Your task to perform on an android device: change the clock display to digital Image 0: 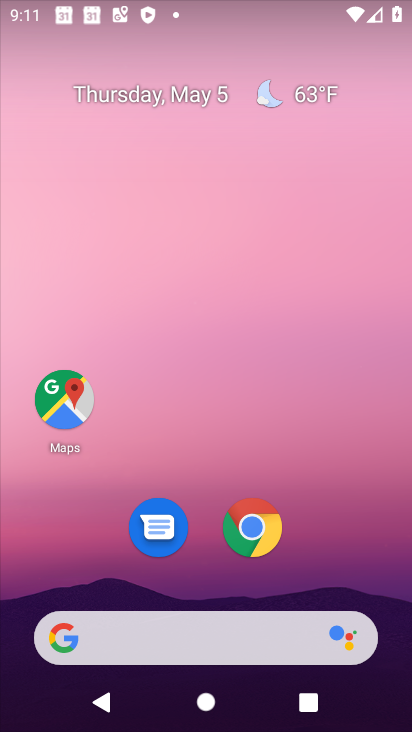
Step 0: drag from (271, 718) to (293, 3)
Your task to perform on an android device: change the clock display to digital Image 1: 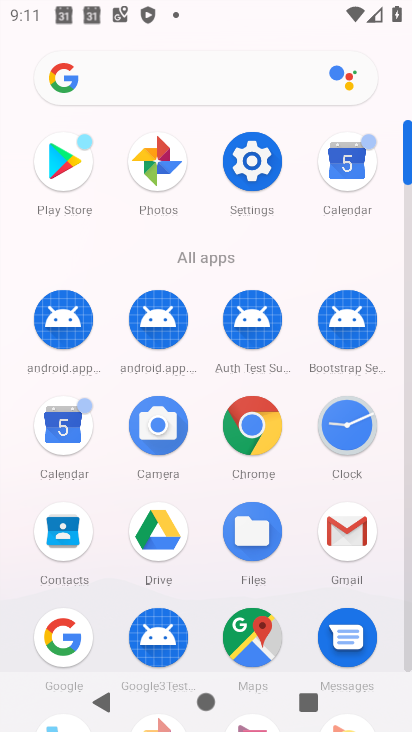
Step 1: click (352, 435)
Your task to perform on an android device: change the clock display to digital Image 2: 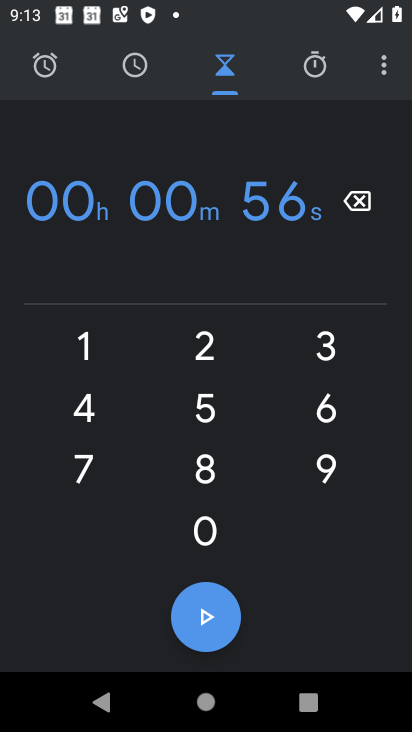
Step 2: click (380, 59)
Your task to perform on an android device: change the clock display to digital Image 3: 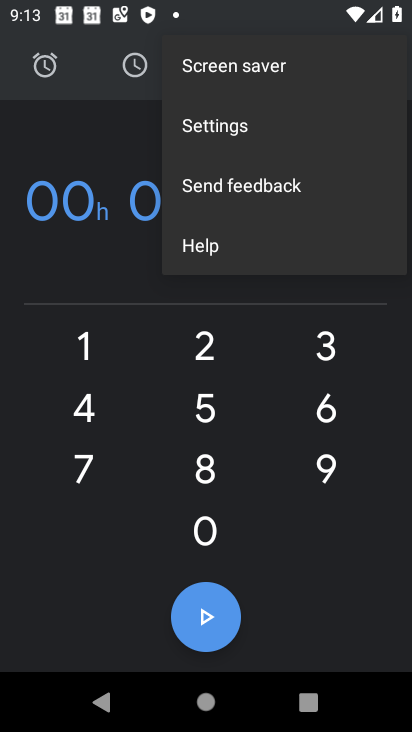
Step 3: click (255, 135)
Your task to perform on an android device: change the clock display to digital Image 4: 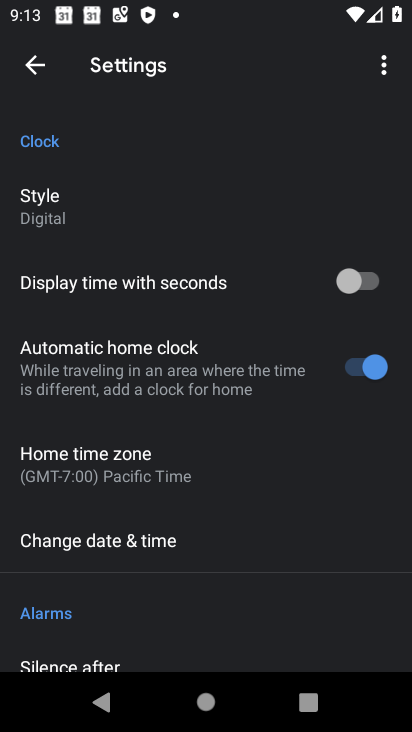
Step 4: click (150, 219)
Your task to perform on an android device: change the clock display to digital Image 5: 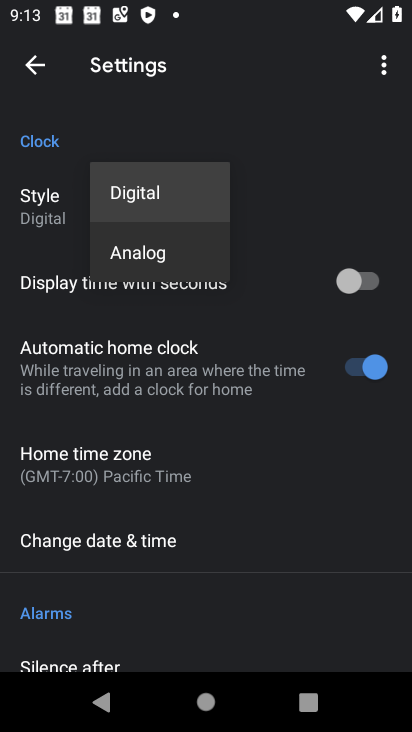
Step 5: click (138, 267)
Your task to perform on an android device: change the clock display to digital Image 6: 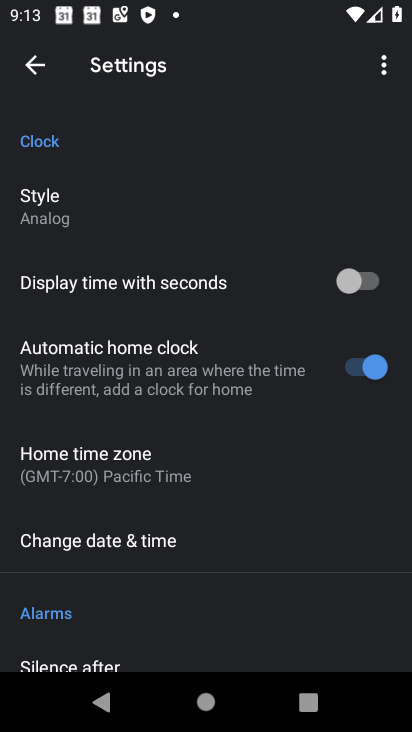
Step 6: task complete